Your task to perform on an android device: empty trash in google photos Image 0: 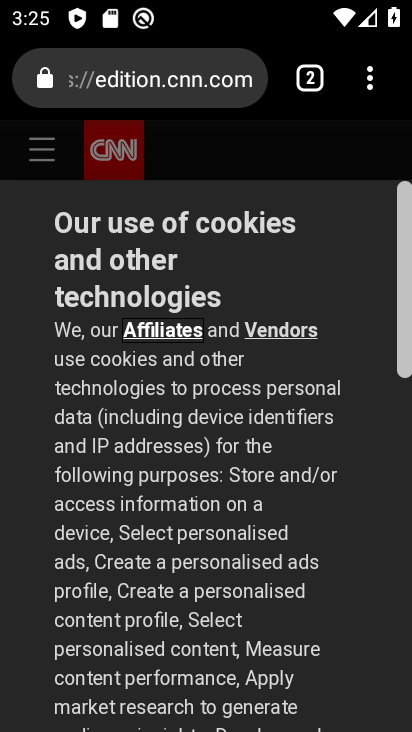
Step 0: press home button
Your task to perform on an android device: empty trash in google photos Image 1: 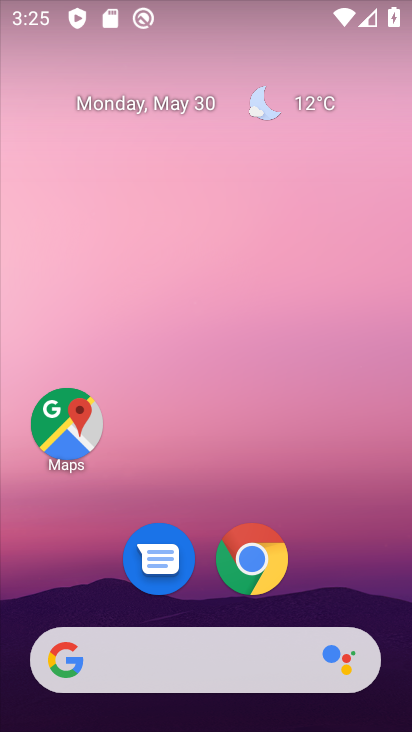
Step 1: drag from (201, 726) to (197, 121)
Your task to perform on an android device: empty trash in google photos Image 2: 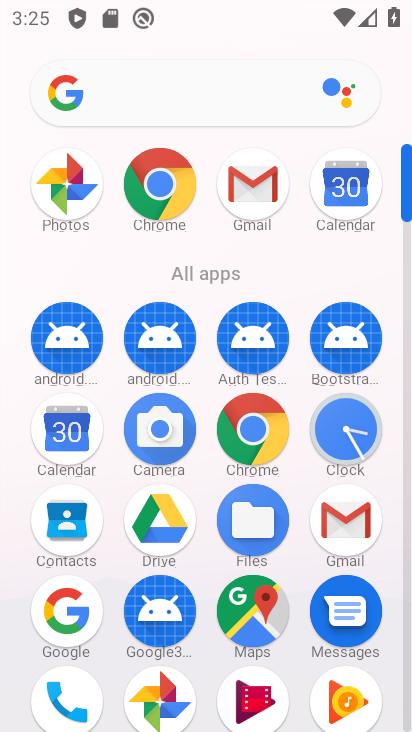
Step 2: click (164, 693)
Your task to perform on an android device: empty trash in google photos Image 3: 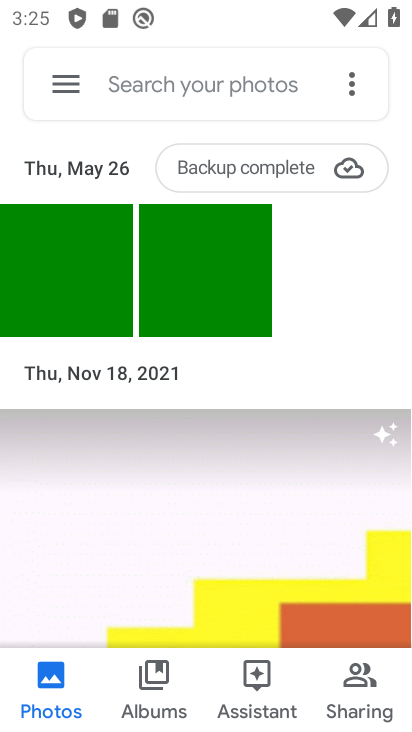
Step 3: click (68, 77)
Your task to perform on an android device: empty trash in google photos Image 4: 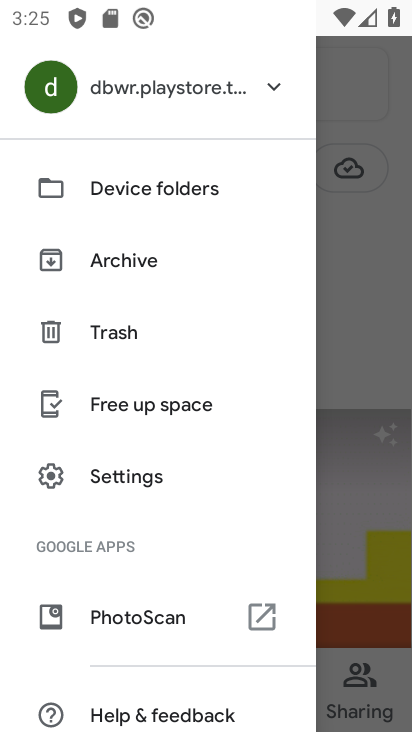
Step 4: click (104, 332)
Your task to perform on an android device: empty trash in google photos Image 5: 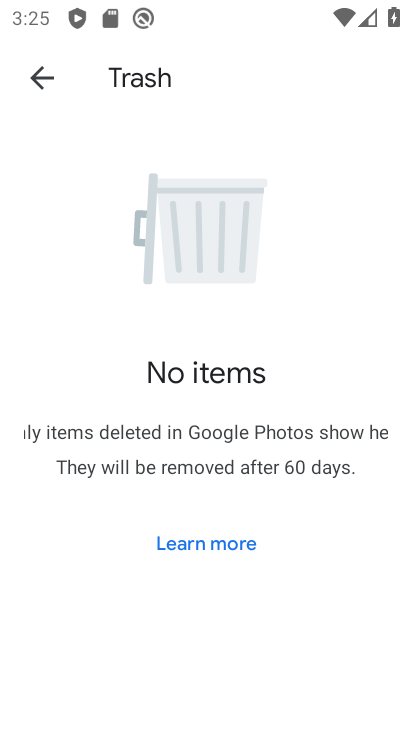
Step 5: task complete